Your task to perform on an android device: Go to CNN.com Image 0: 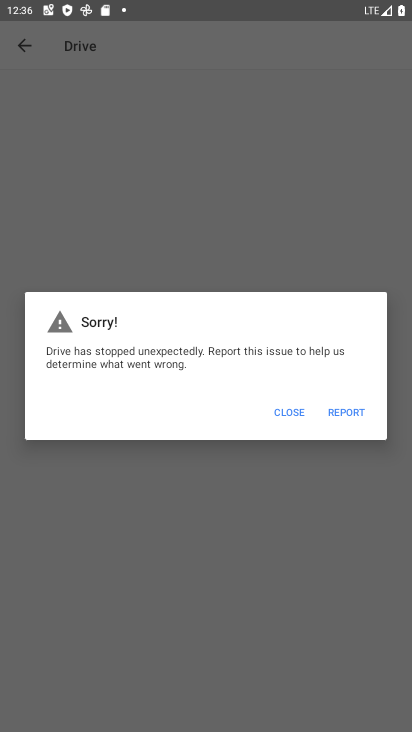
Step 0: press home button
Your task to perform on an android device: Go to CNN.com Image 1: 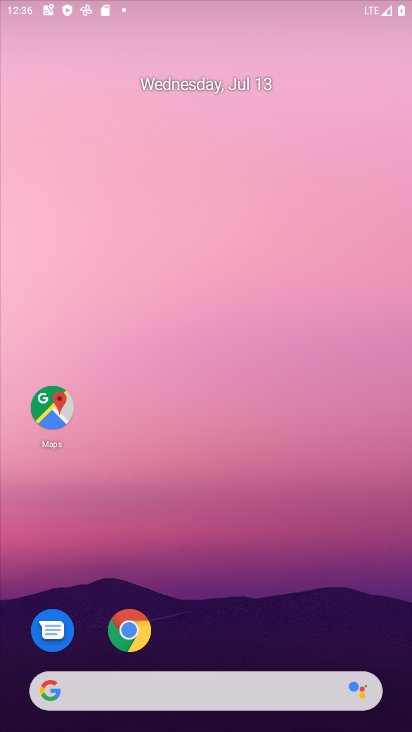
Step 1: drag from (393, 690) to (38, 11)
Your task to perform on an android device: Go to CNN.com Image 2: 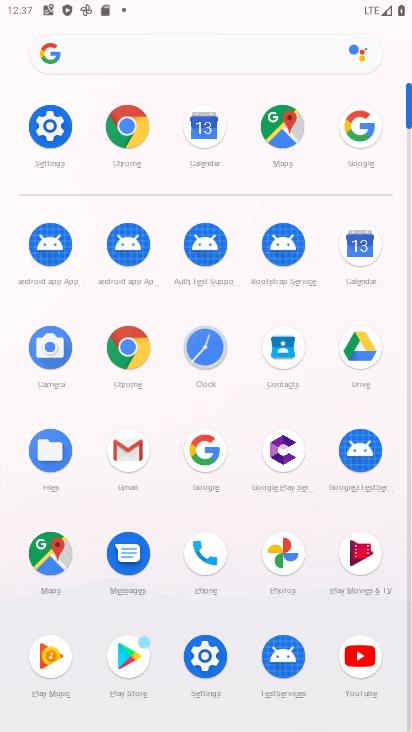
Step 2: click (189, 457)
Your task to perform on an android device: Go to CNN.com Image 3: 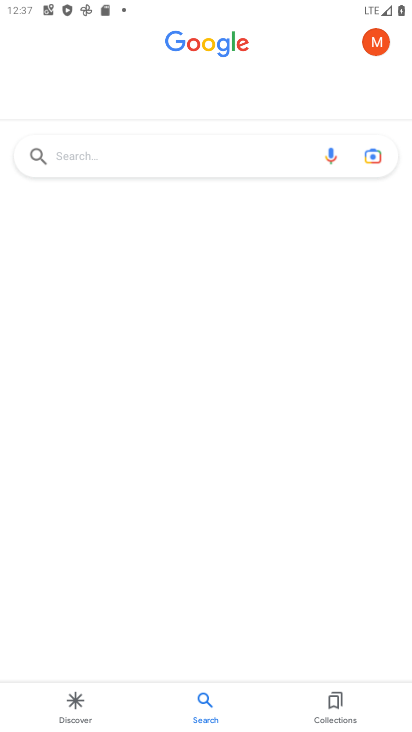
Step 3: click (115, 153)
Your task to perform on an android device: Go to CNN.com Image 4: 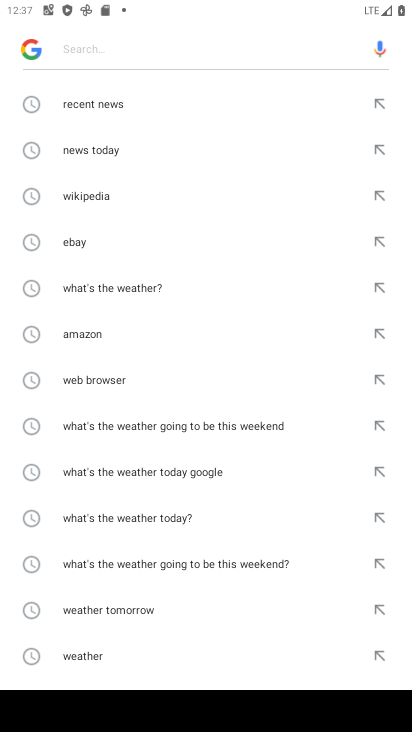
Step 4: type "cnn.com"
Your task to perform on an android device: Go to CNN.com Image 5: 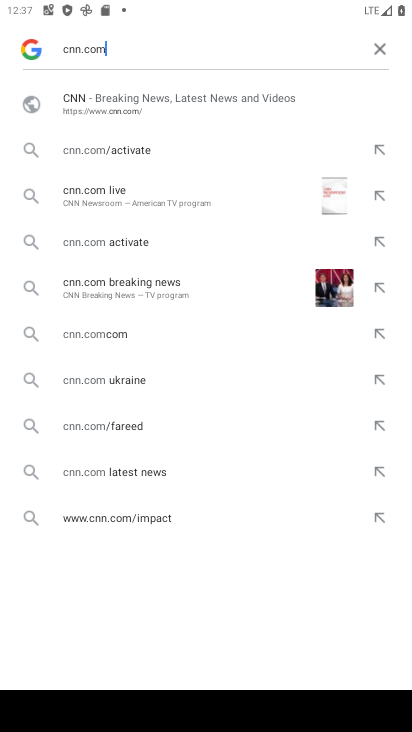
Step 5: click (109, 99)
Your task to perform on an android device: Go to CNN.com Image 6: 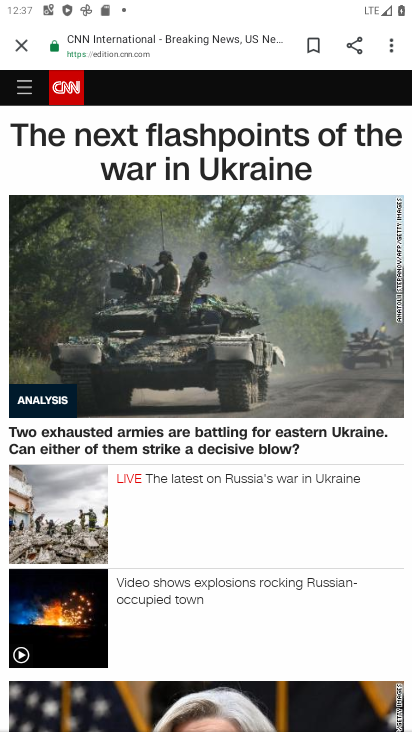
Step 6: task complete